Your task to perform on an android device: Open eBay Image 0: 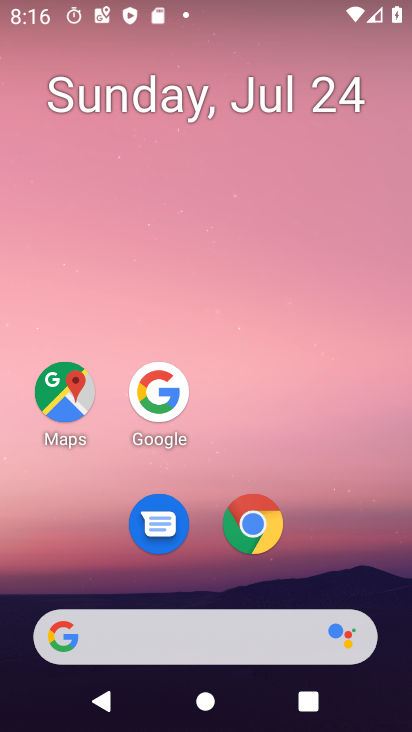
Step 0: press home button
Your task to perform on an android device: Open eBay Image 1: 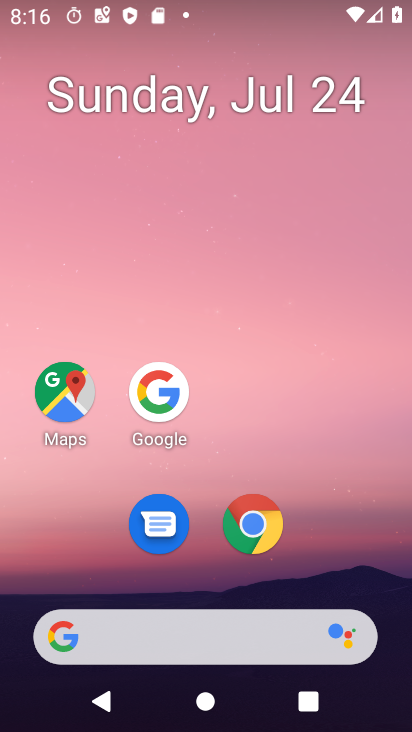
Step 1: click (255, 525)
Your task to perform on an android device: Open eBay Image 2: 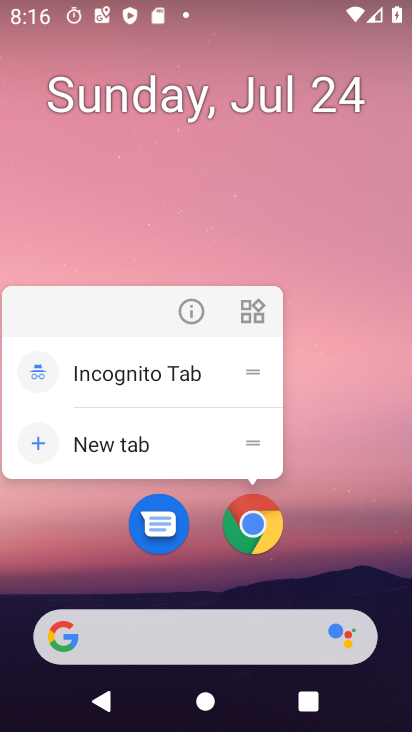
Step 2: click (255, 534)
Your task to perform on an android device: Open eBay Image 3: 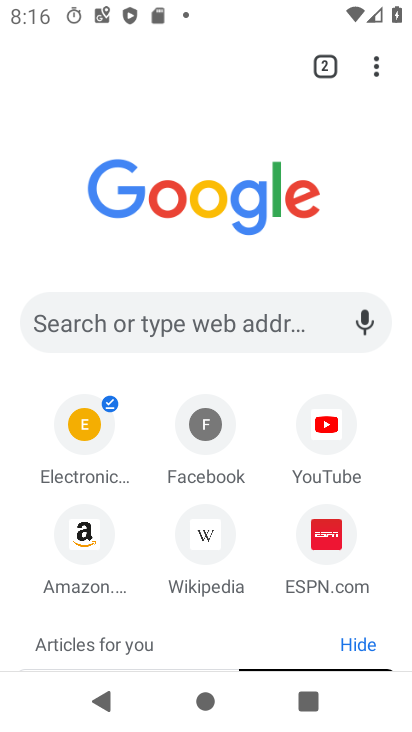
Step 3: click (158, 321)
Your task to perform on an android device: Open eBay Image 4: 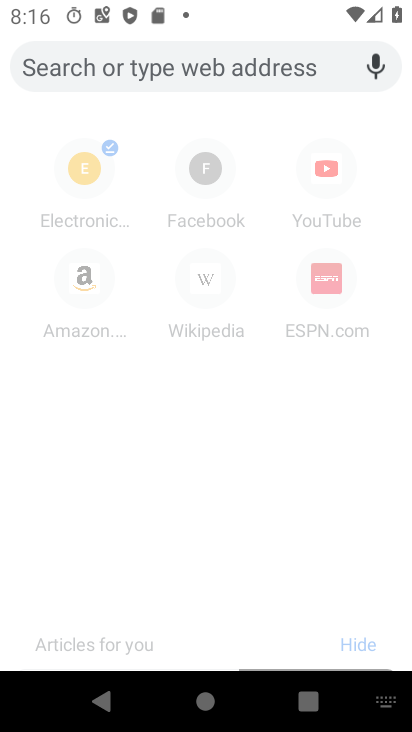
Step 4: type "ebay"
Your task to perform on an android device: Open eBay Image 5: 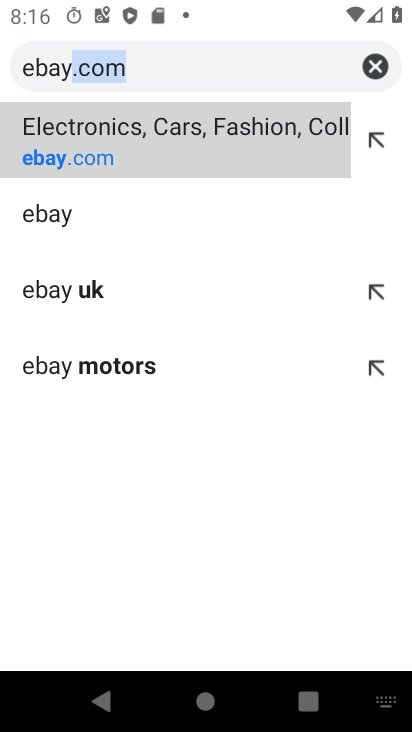
Step 5: click (204, 141)
Your task to perform on an android device: Open eBay Image 6: 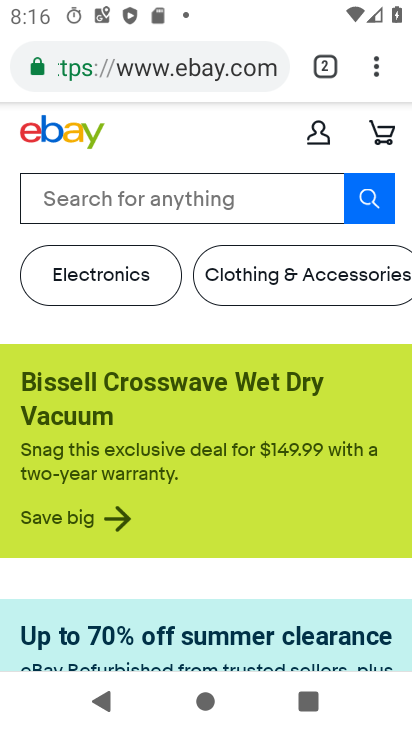
Step 6: task complete